Your task to perform on an android device: Search for a new lawnmower on Lowes.com Image 0: 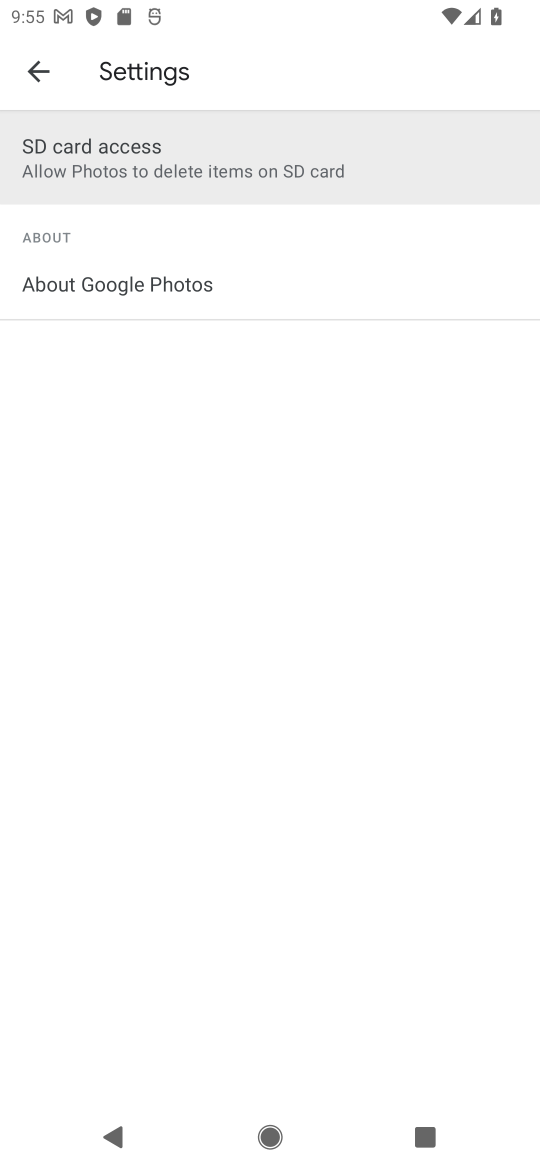
Step 0: press home button
Your task to perform on an android device: Search for a new lawnmower on Lowes.com Image 1: 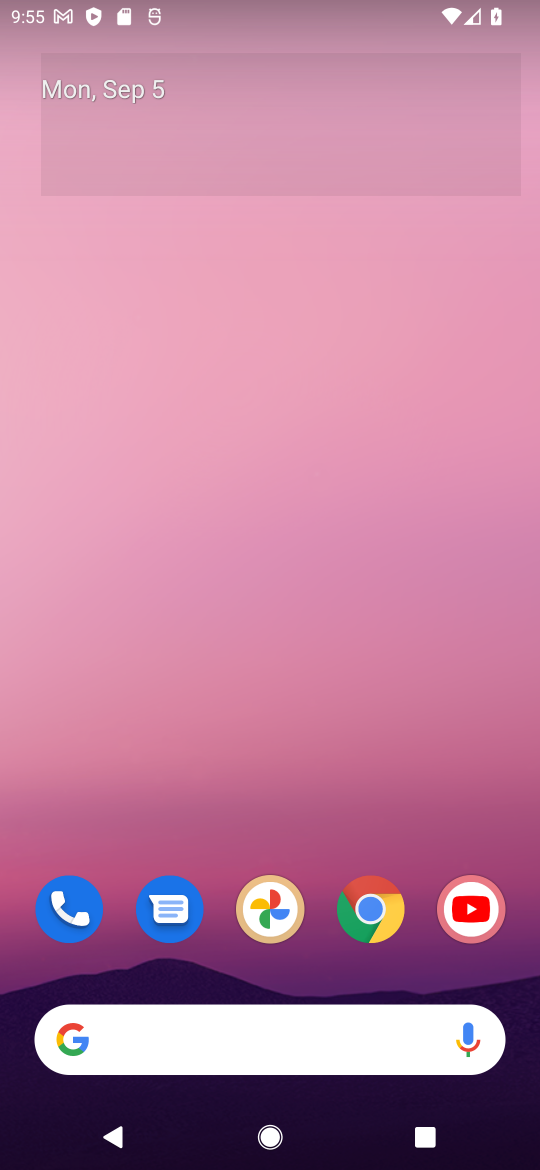
Step 1: click (364, 893)
Your task to perform on an android device: Search for a new lawnmower on Lowes.com Image 2: 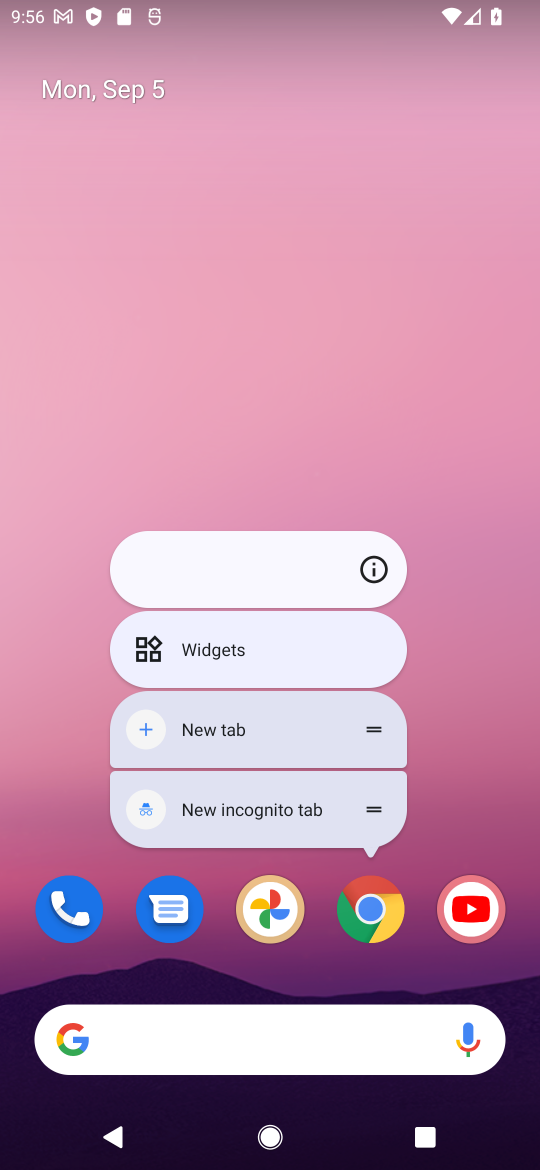
Step 2: click (347, 923)
Your task to perform on an android device: Search for a new lawnmower on Lowes.com Image 3: 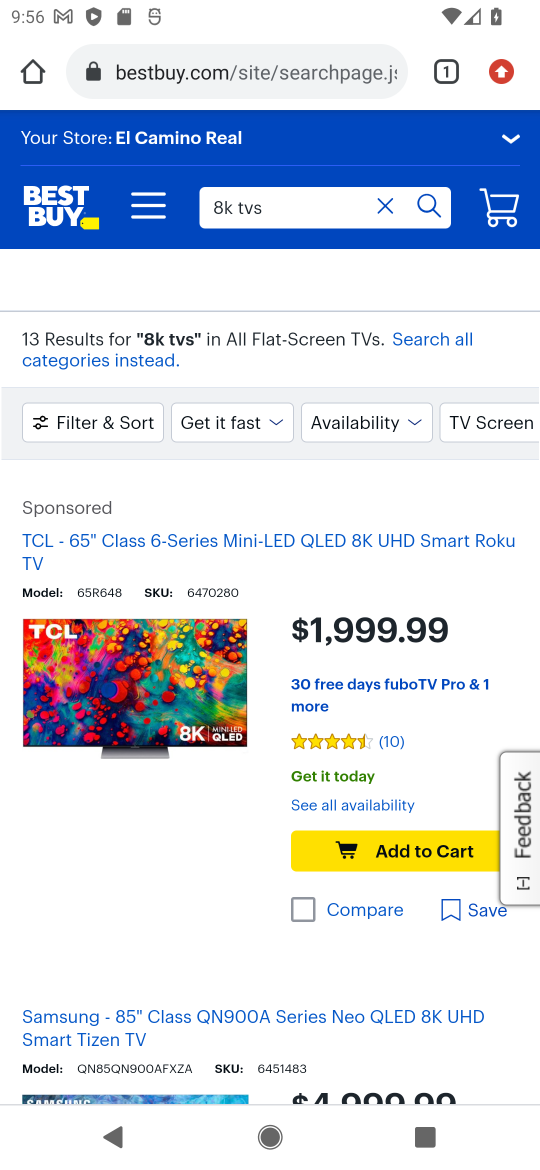
Step 3: click (353, 88)
Your task to perform on an android device: Search for a new lawnmower on Lowes.com Image 4: 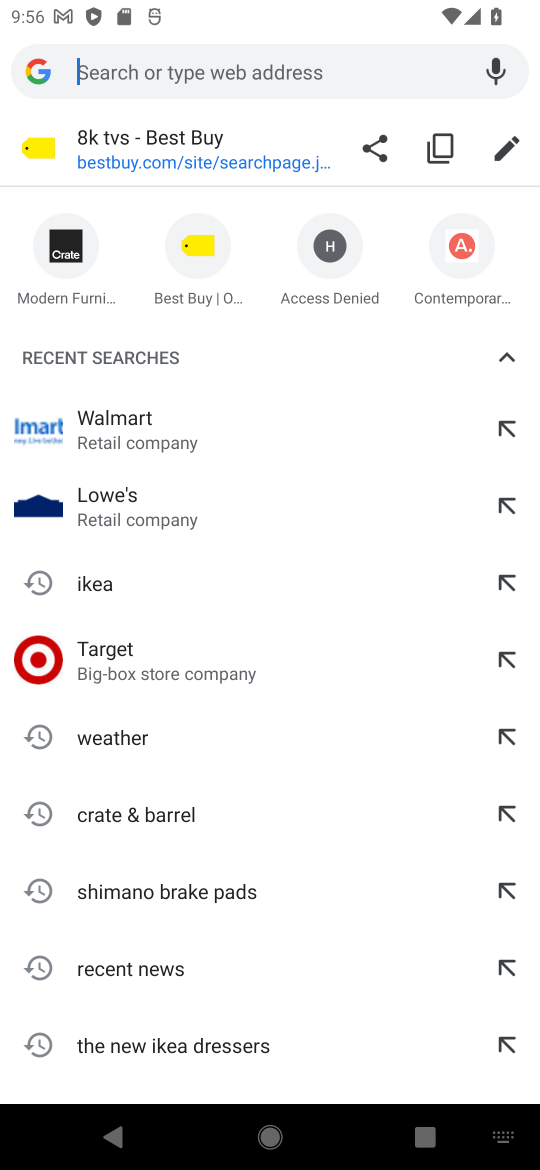
Step 4: type "lowes.com"
Your task to perform on an android device: Search for a new lawnmower on Lowes.com Image 5: 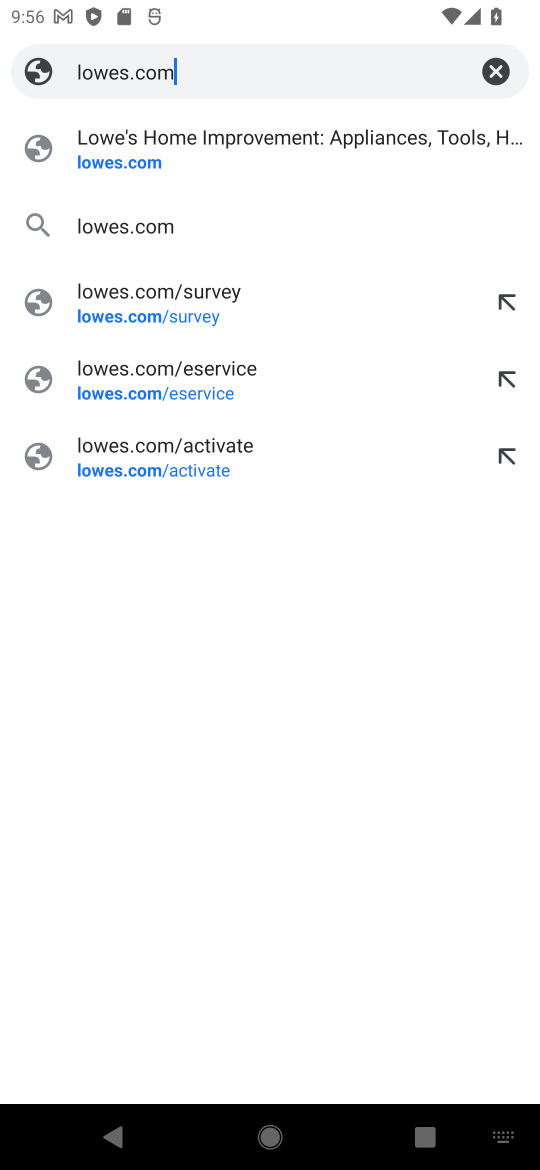
Step 5: click (341, 140)
Your task to perform on an android device: Search for a new lawnmower on Lowes.com Image 6: 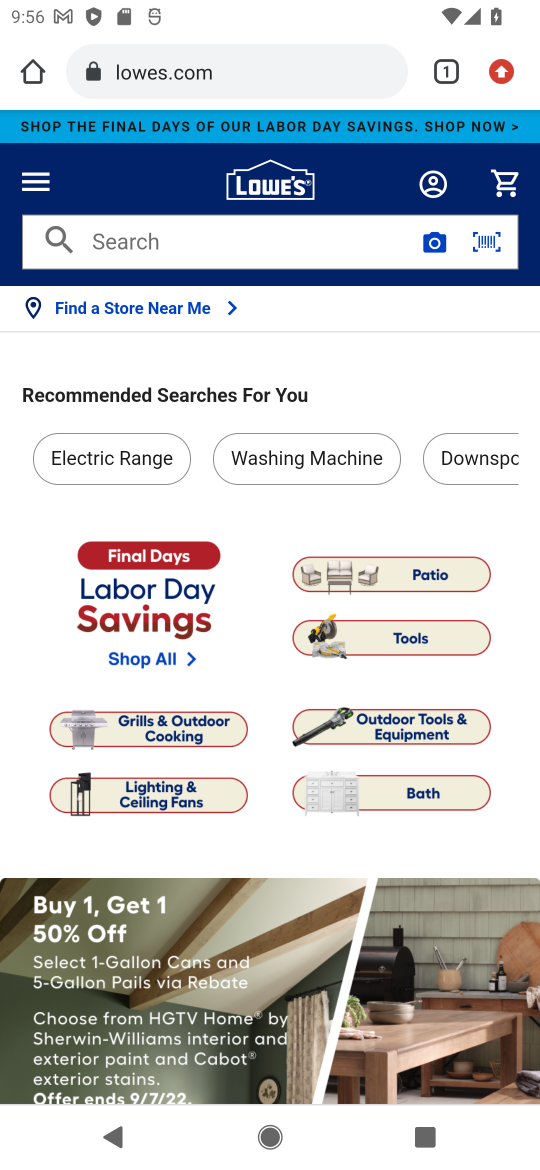
Step 6: click (284, 243)
Your task to perform on an android device: Search for a new lawnmower on Lowes.com Image 7: 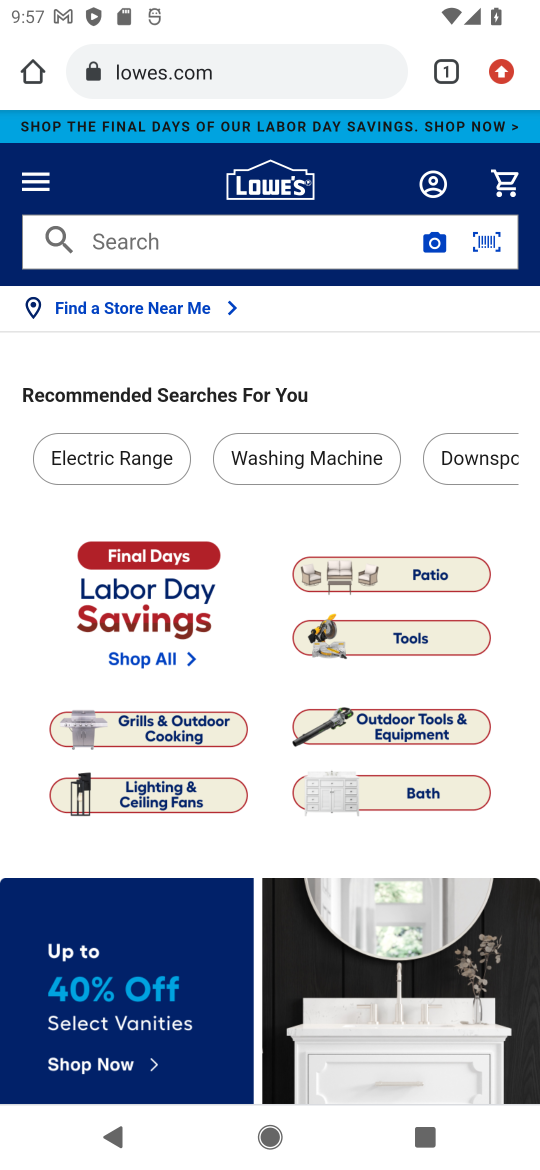
Step 7: click (105, 244)
Your task to perform on an android device: Search for a new lawnmower on Lowes.com Image 8: 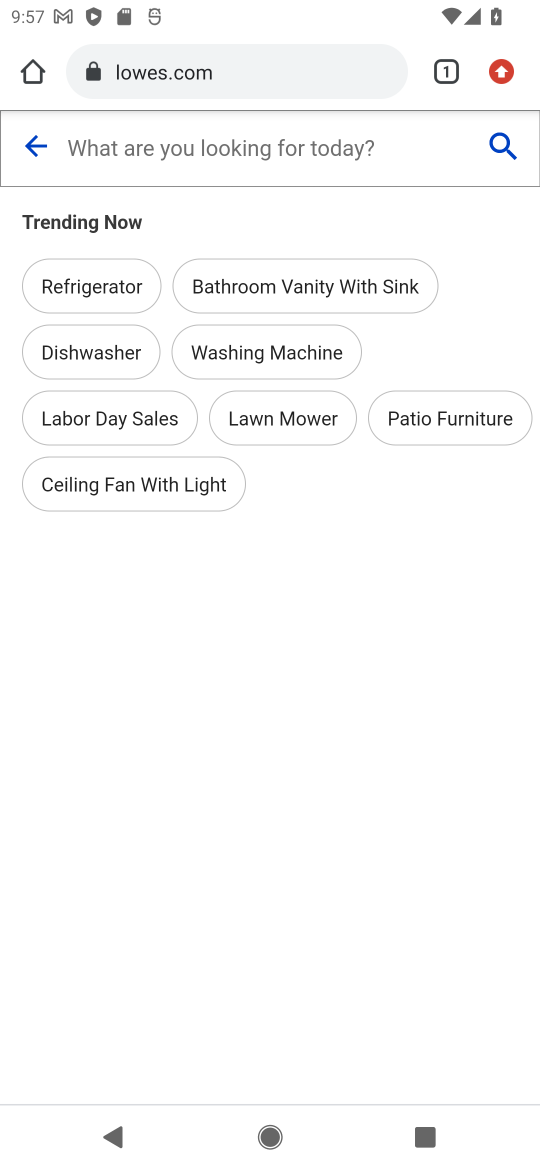
Step 8: type "new lawnmower"
Your task to perform on an android device: Search for a new lawnmower on Lowes.com Image 9: 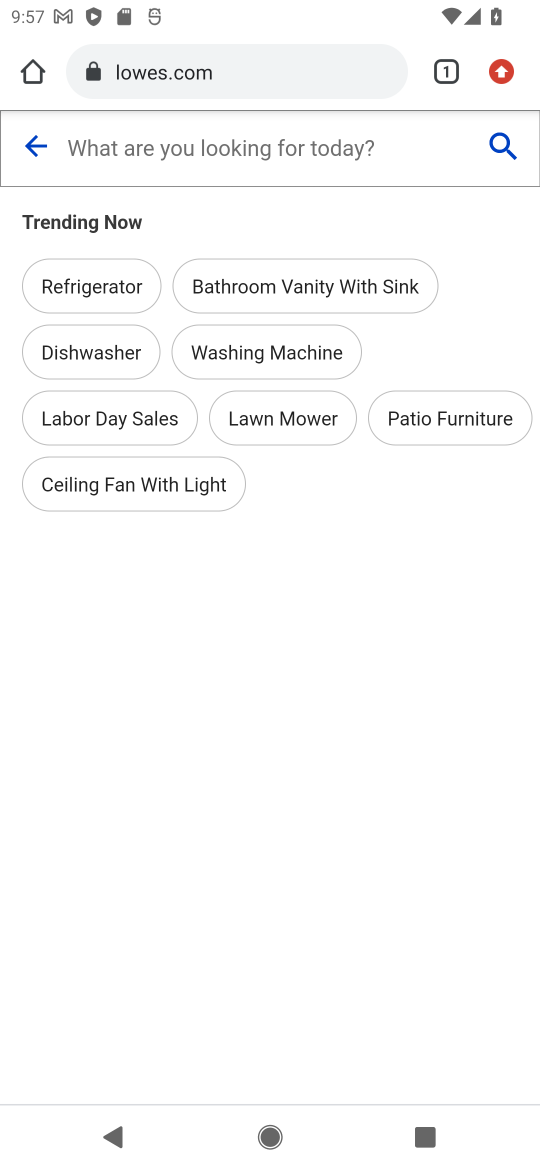
Step 9: click (278, 158)
Your task to perform on an android device: Search for a new lawnmower on Lowes.com Image 10: 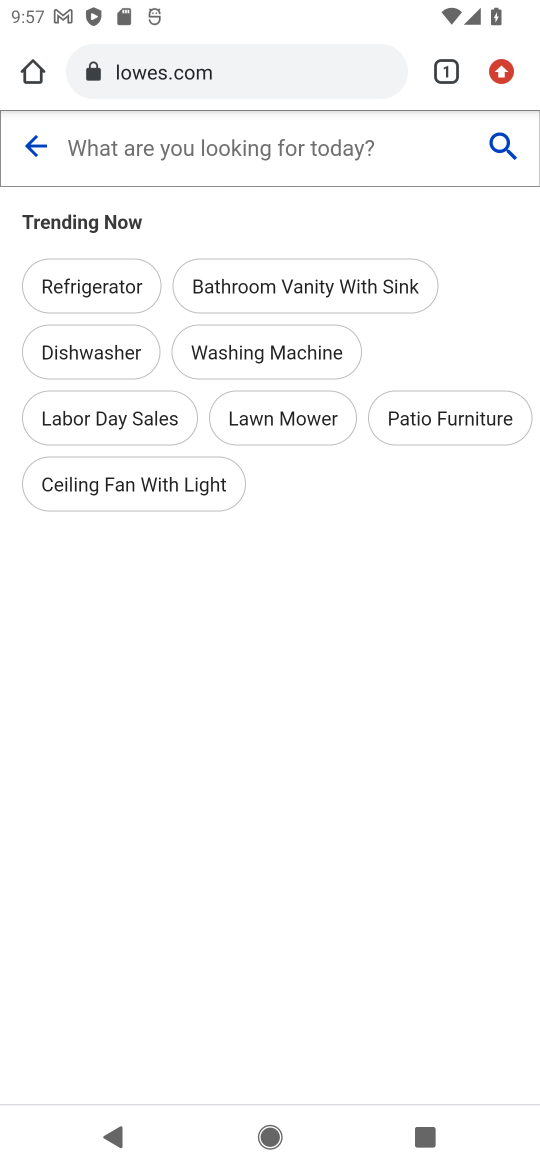
Step 10: type "new lawnmower"
Your task to perform on an android device: Search for a new lawnmower on Lowes.com Image 11: 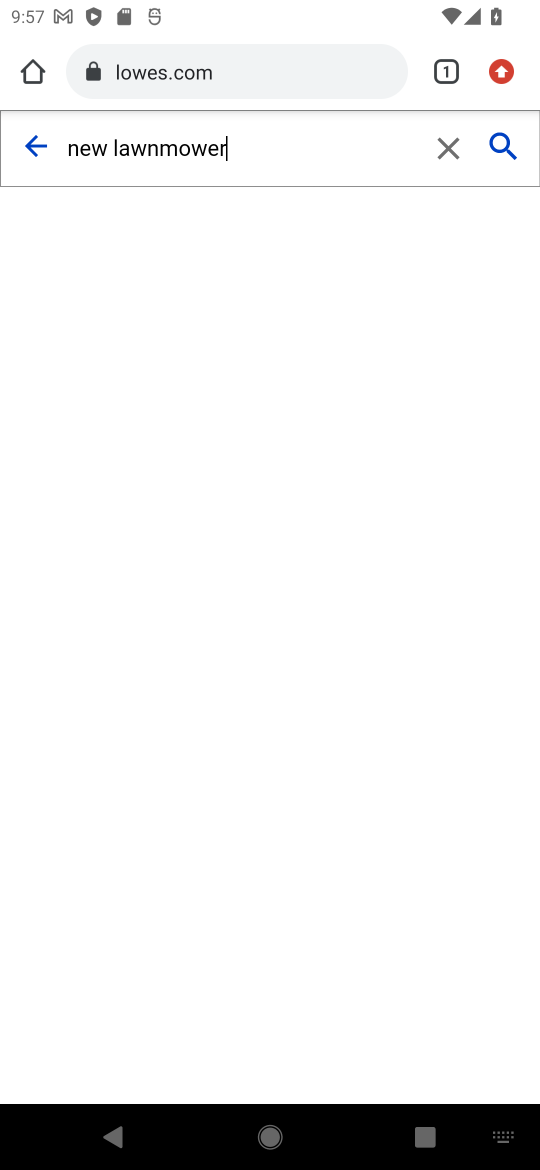
Step 11: click (498, 144)
Your task to perform on an android device: Search for a new lawnmower on Lowes.com Image 12: 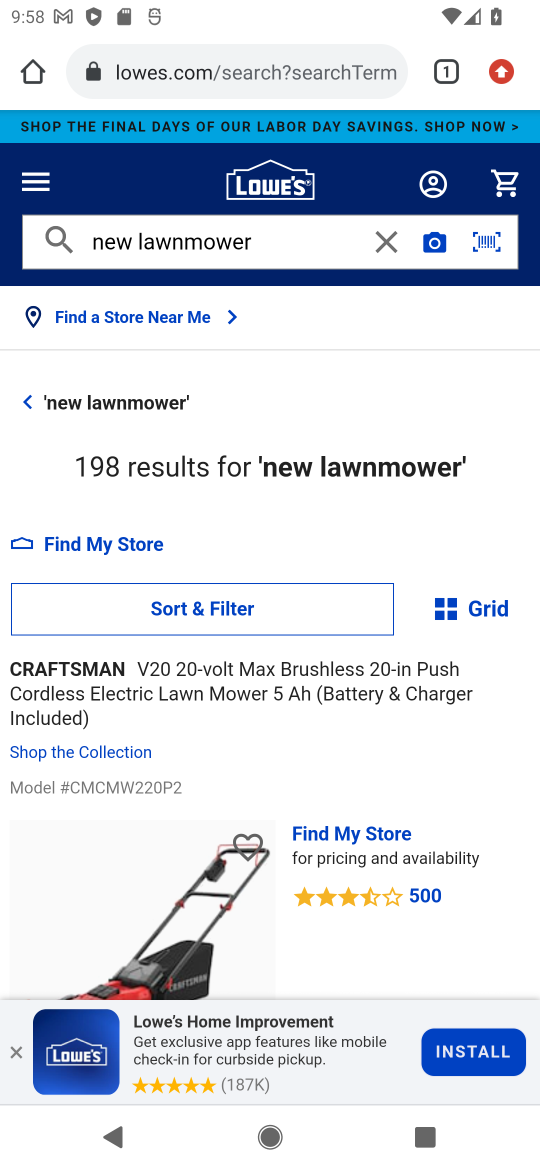
Step 12: task complete